Your task to perform on an android device: Check the news Image 0: 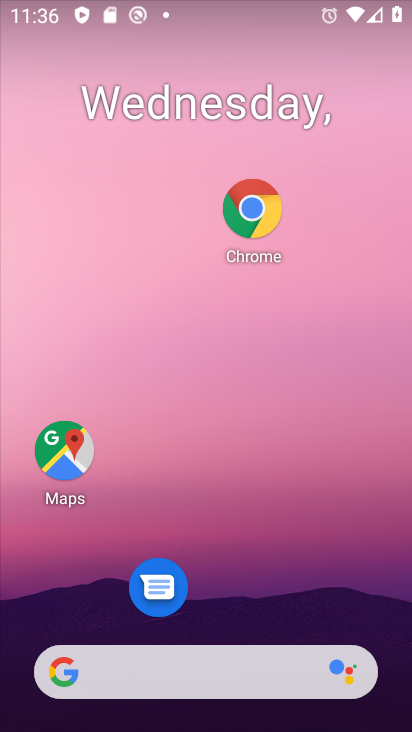
Step 0: click (226, 671)
Your task to perform on an android device: Check the news Image 1: 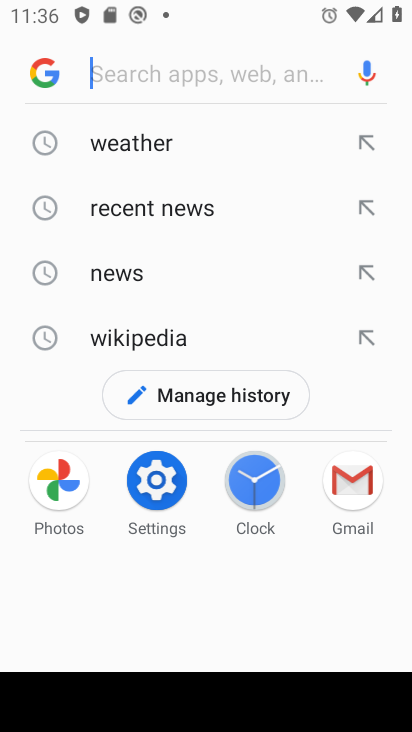
Step 1: click (137, 279)
Your task to perform on an android device: Check the news Image 2: 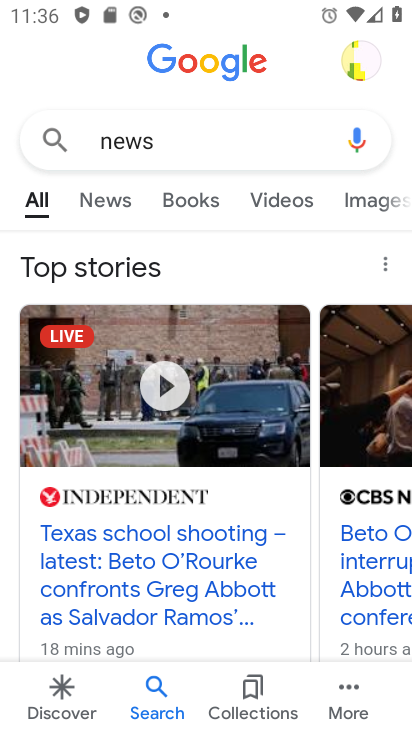
Step 2: task complete